Your task to perform on an android device: Go to wifi settings Image 0: 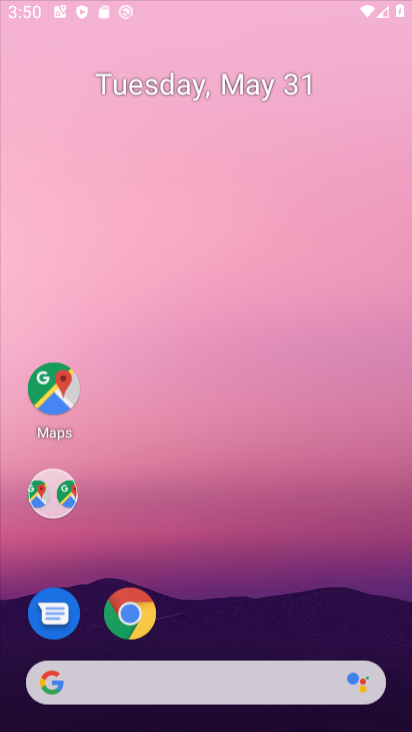
Step 0: drag from (268, 642) to (192, 198)
Your task to perform on an android device: Go to wifi settings Image 1: 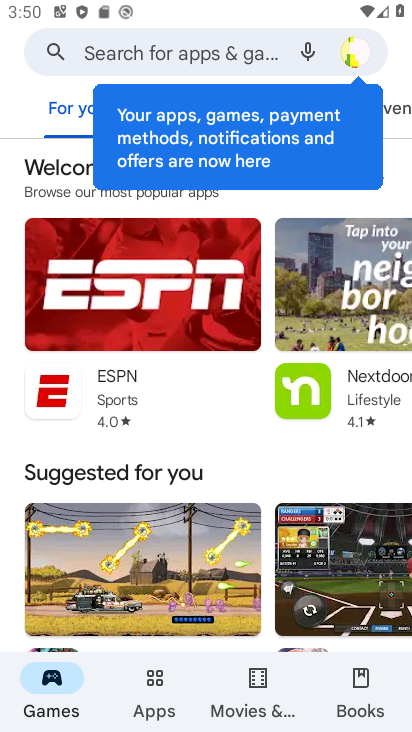
Step 1: press home button
Your task to perform on an android device: Go to wifi settings Image 2: 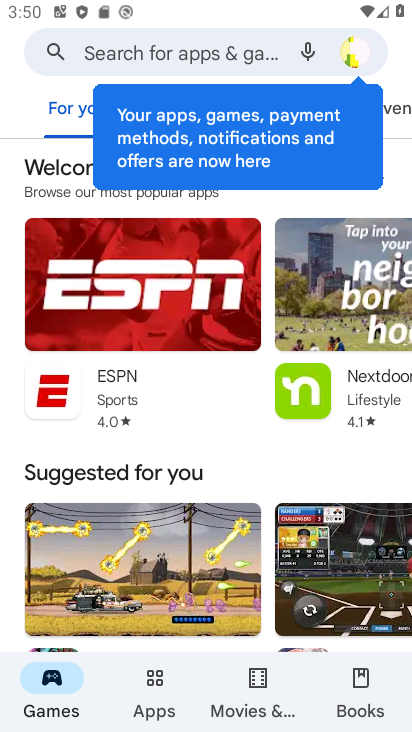
Step 2: press home button
Your task to perform on an android device: Go to wifi settings Image 3: 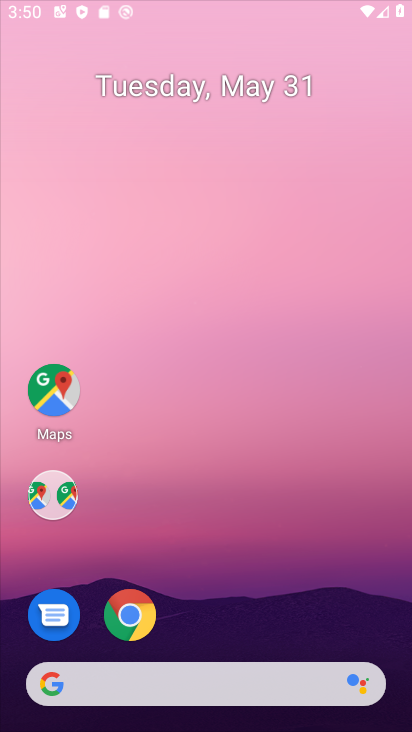
Step 3: press home button
Your task to perform on an android device: Go to wifi settings Image 4: 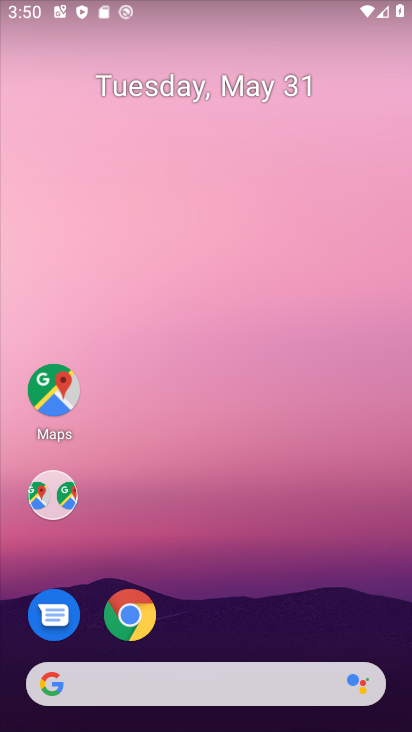
Step 4: drag from (190, 536) to (118, 119)
Your task to perform on an android device: Go to wifi settings Image 5: 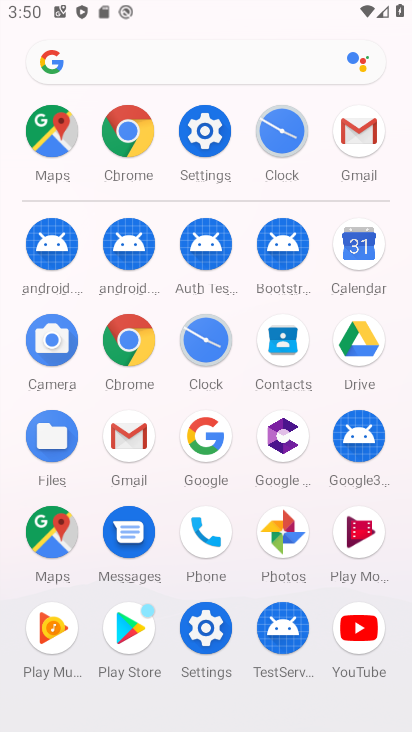
Step 5: click (210, 115)
Your task to perform on an android device: Go to wifi settings Image 6: 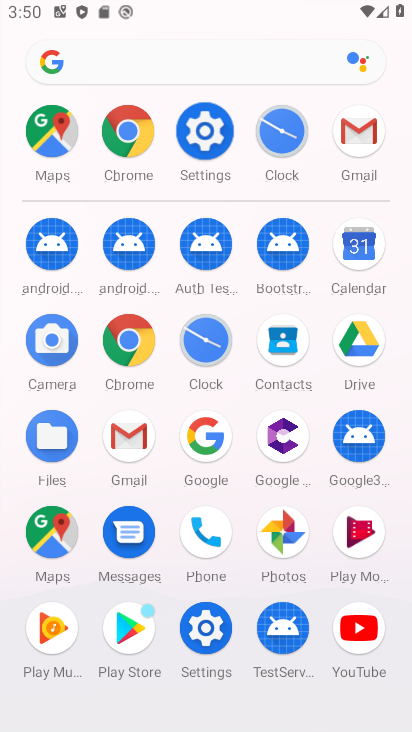
Step 6: click (209, 116)
Your task to perform on an android device: Go to wifi settings Image 7: 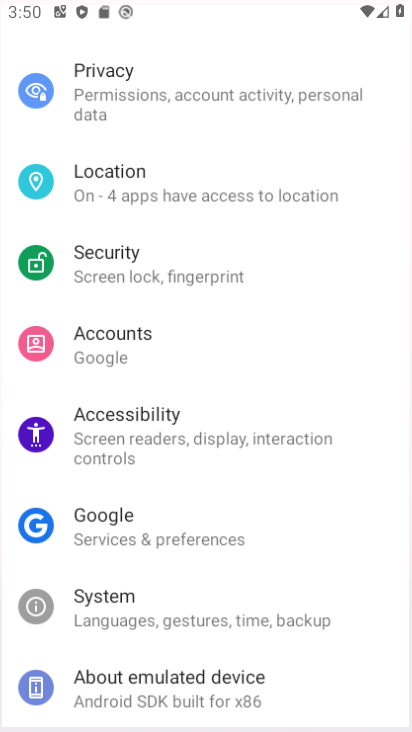
Step 7: click (209, 116)
Your task to perform on an android device: Go to wifi settings Image 8: 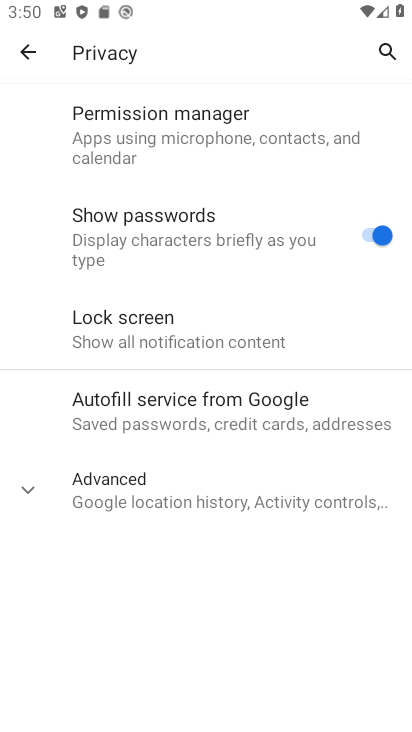
Step 8: click (21, 54)
Your task to perform on an android device: Go to wifi settings Image 9: 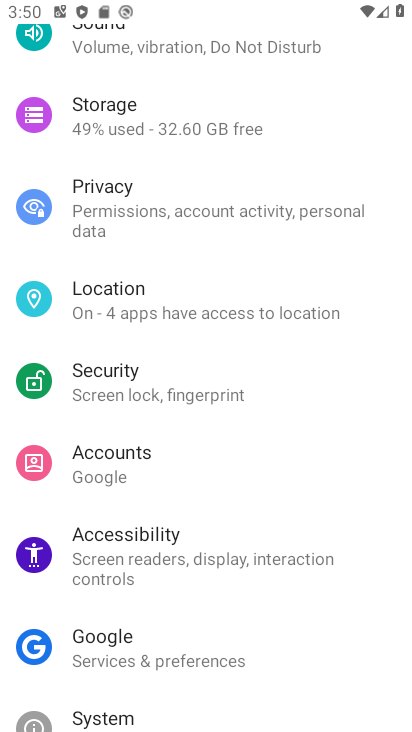
Step 9: drag from (160, 215) to (246, 513)
Your task to perform on an android device: Go to wifi settings Image 10: 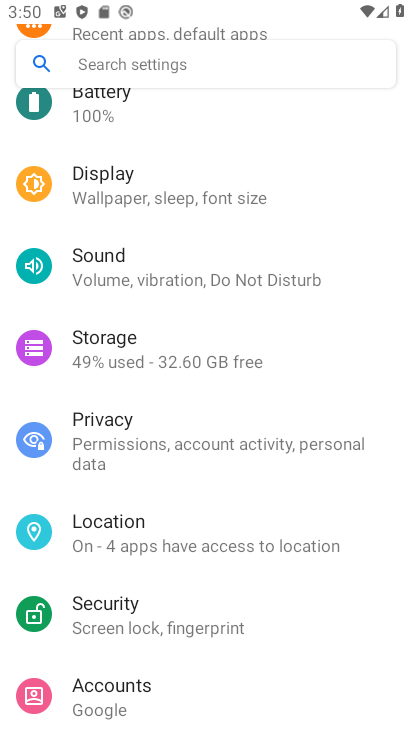
Step 10: drag from (224, 256) to (275, 613)
Your task to perform on an android device: Go to wifi settings Image 11: 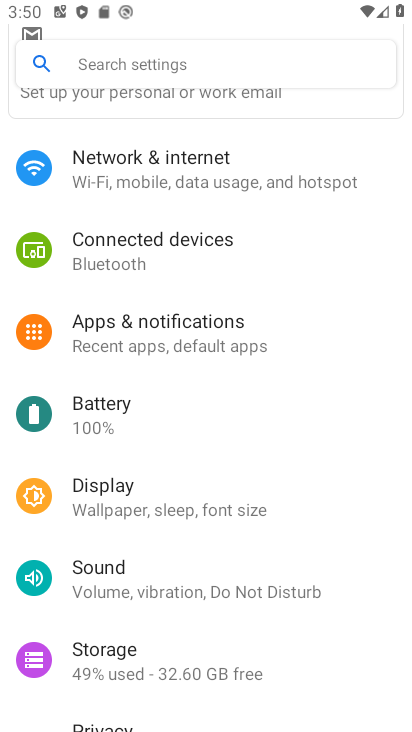
Step 11: drag from (181, 283) to (246, 631)
Your task to perform on an android device: Go to wifi settings Image 12: 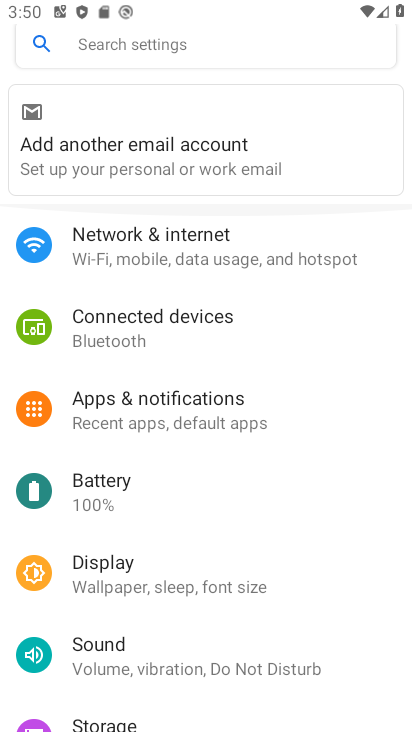
Step 12: drag from (198, 247) to (288, 624)
Your task to perform on an android device: Go to wifi settings Image 13: 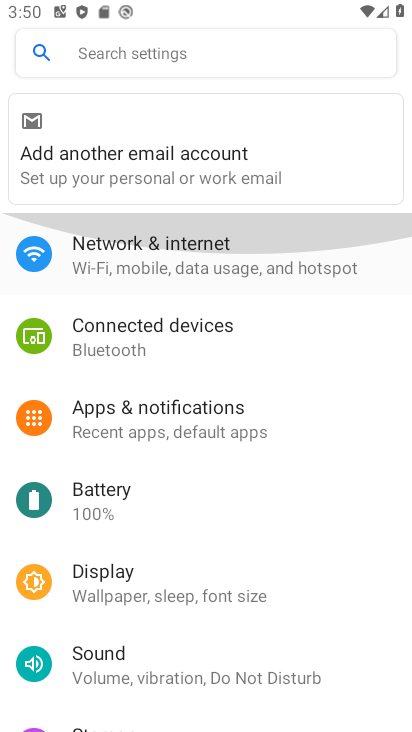
Step 13: drag from (217, 281) to (286, 698)
Your task to perform on an android device: Go to wifi settings Image 14: 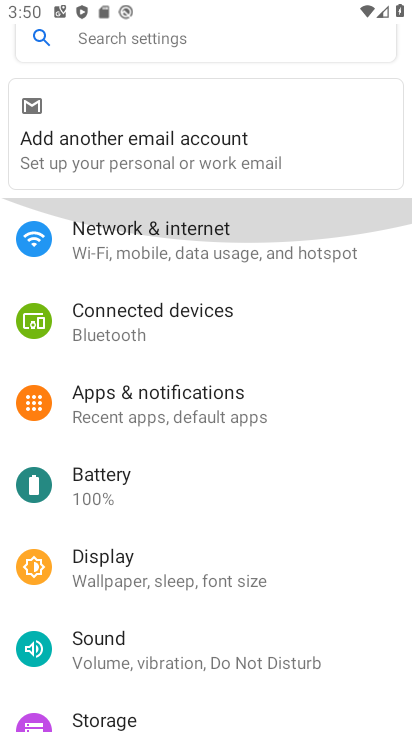
Step 14: drag from (152, 181) to (187, 482)
Your task to perform on an android device: Go to wifi settings Image 15: 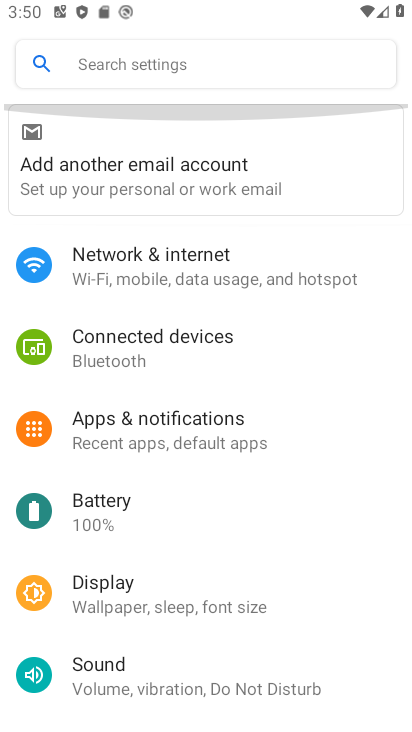
Step 15: drag from (121, 134) to (208, 556)
Your task to perform on an android device: Go to wifi settings Image 16: 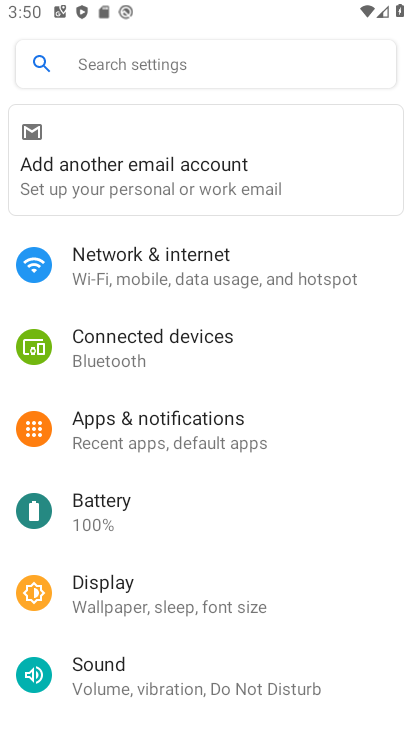
Step 16: click (158, 264)
Your task to perform on an android device: Go to wifi settings Image 17: 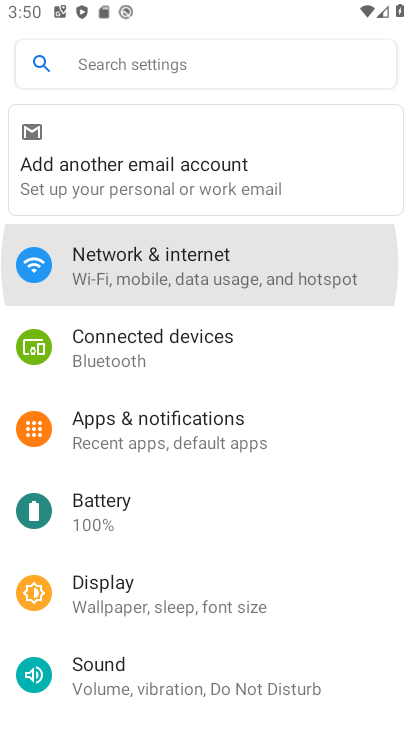
Step 17: click (158, 264)
Your task to perform on an android device: Go to wifi settings Image 18: 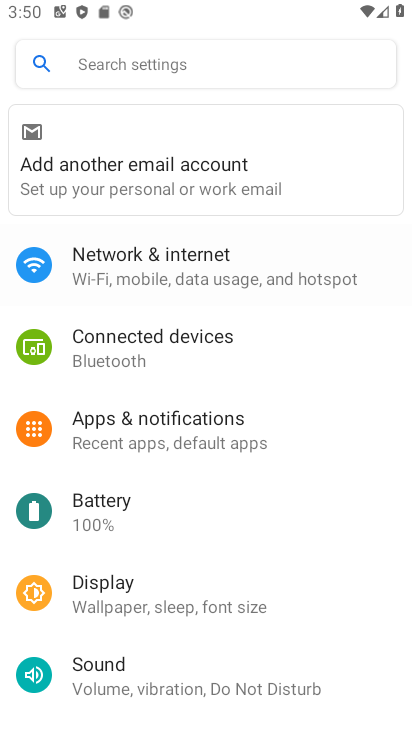
Step 18: click (158, 264)
Your task to perform on an android device: Go to wifi settings Image 19: 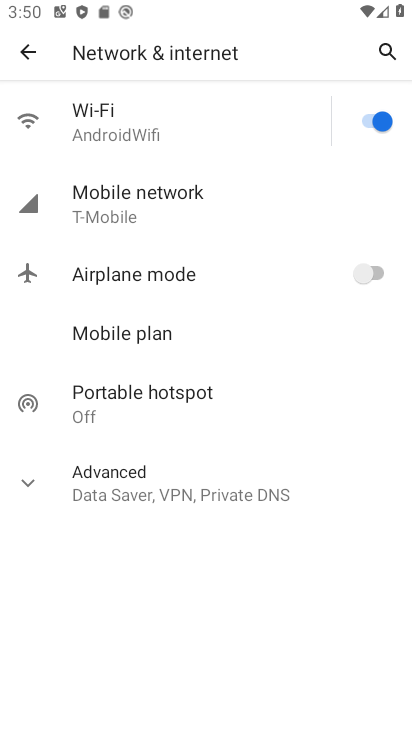
Step 19: task complete